Your task to perform on an android device: Go to battery settings Image 0: 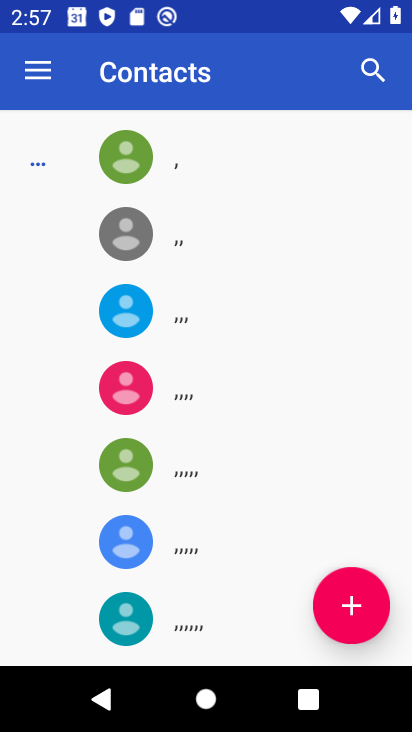
Step 0: press home button
Your task to perform on an android device: Go to battery settings Image 1: 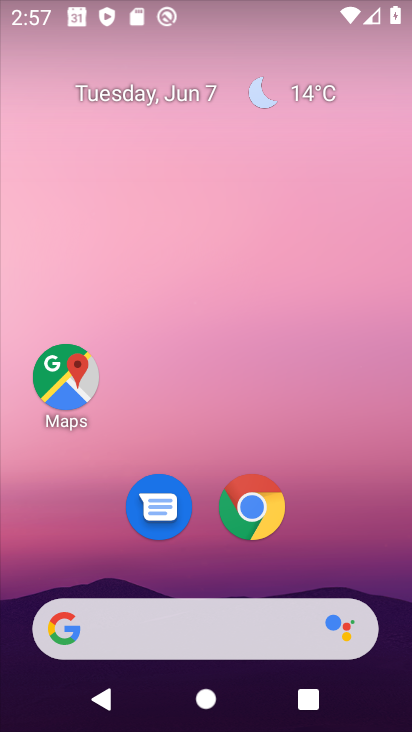
Step 1: click (308, 196)
Your task to perform on an android device: Go to battery settings Image 2: 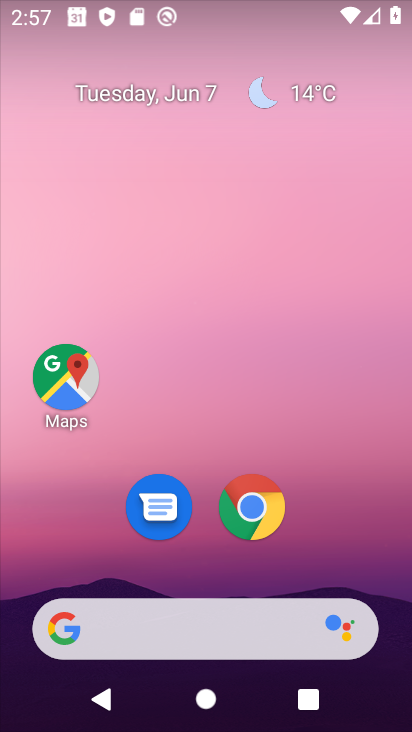
Step 2: drag from (338, 521) to (285, 87)
Your task to perform on an android device: Go to battery settings Image 3: 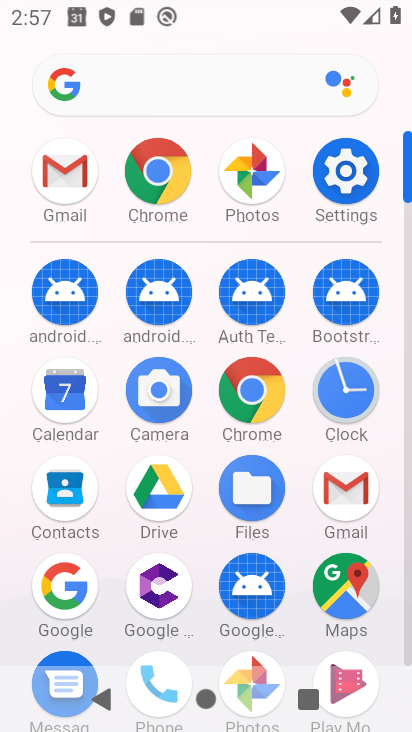
Step 3: click (362, 149)
Your task to perform on an android device: Go to battery settings Image 4: 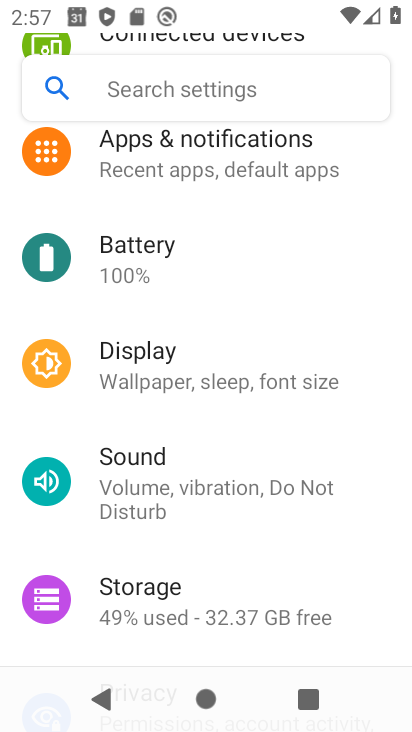
Step 4: click (145, 278)
Your task to perform on an android device: Go to battery settings Image 5: 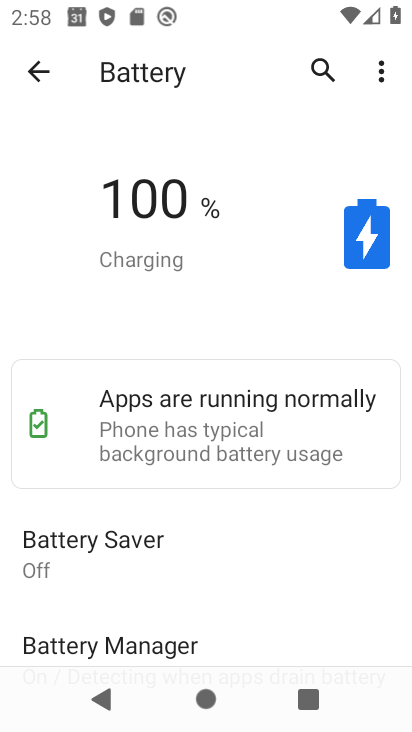
Step 5: task complete